Your task to perform on an android device: find snoozed emails in the gmail app Image 0: 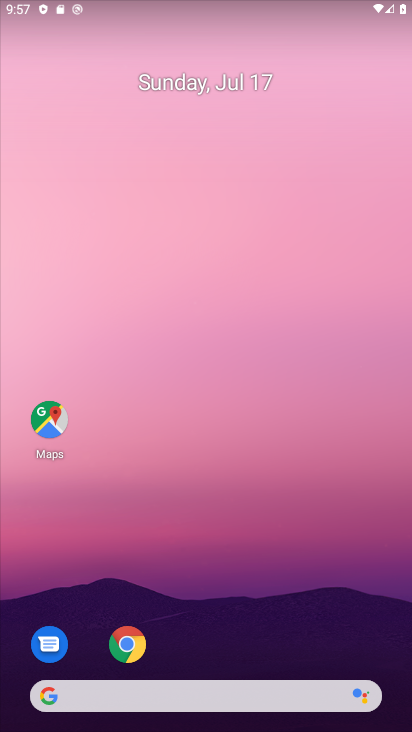
Step 0: drag from (275, 582) to (205, 40)
Your task to perform on an android device: find snoozed emails in the gmail app Image 1: 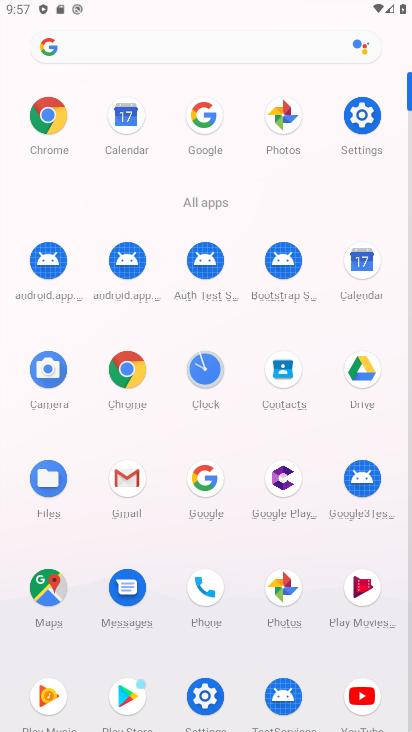
Step 1: click (128, 485)
Your task to perform on an android device: find snoozed emails in the gmail app Image 2: 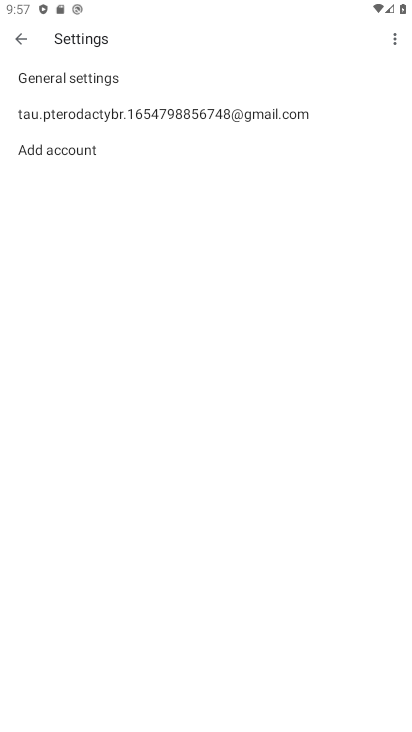
Step 2: click (26, 49)
Your task to perform on an android device: find snoozed emails in the gmail app Image 3: 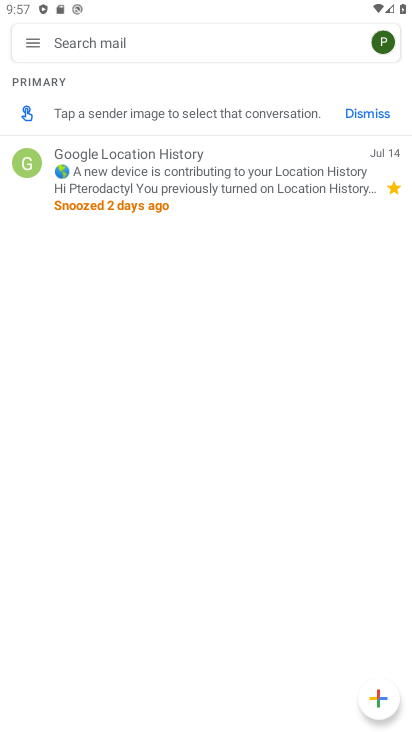
Step 3: click (80, 176)
Your task to perform on an android device: find snoozed emails in the gmail app Image 4: 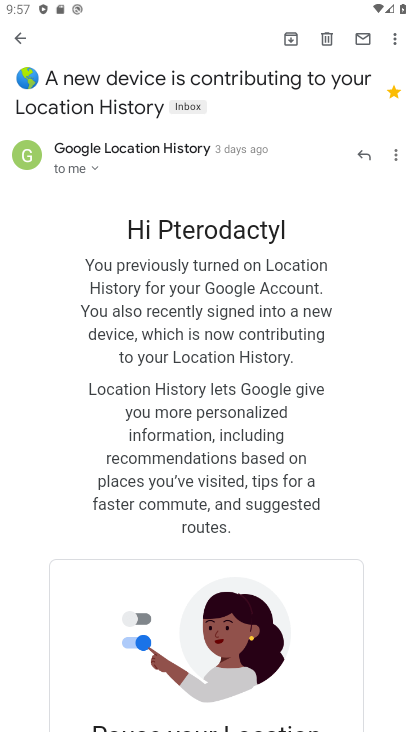
Step 4: task complete